Your task to perform on an android device: turn off improve location accuracy Image 0: 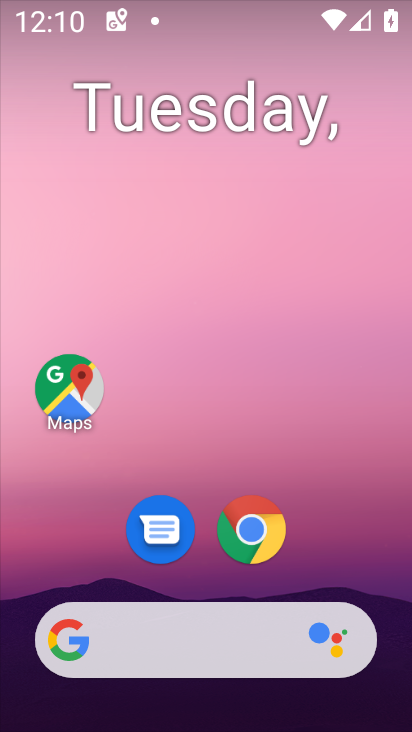
Step 0: drag from (216, 583) to (218, 116)
Your task to perform on an android device: turn off improve location accuracy Image 1: 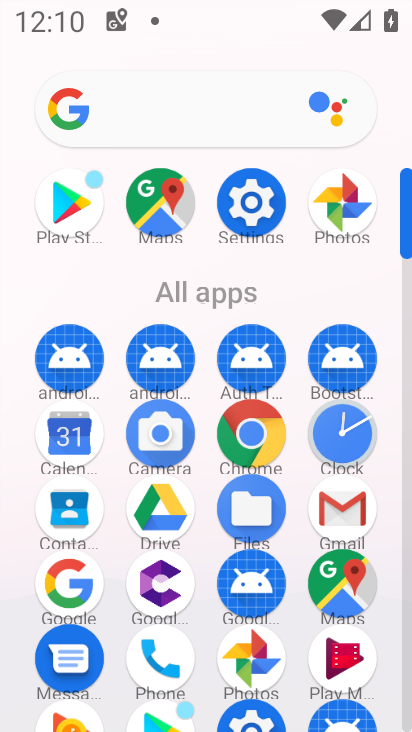
Step 1: click (247, 211)
Your task to perform on an android device: turn off improve location accuracy Image 2: 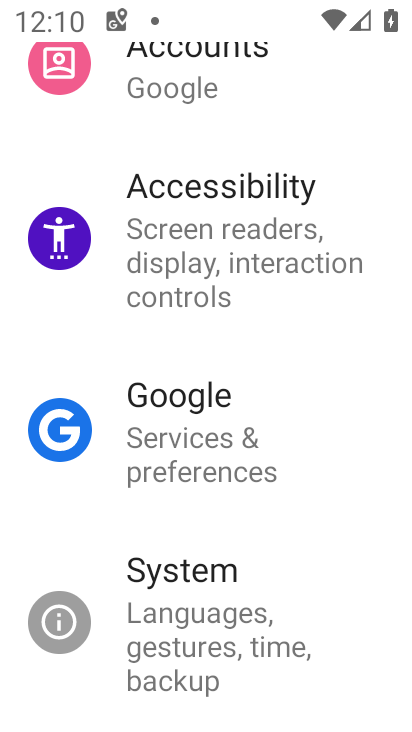
Step 2: drag from (230, 169) to (182, 719)
Your task to perform on an android device: turn off improve location accuracy Image 3: 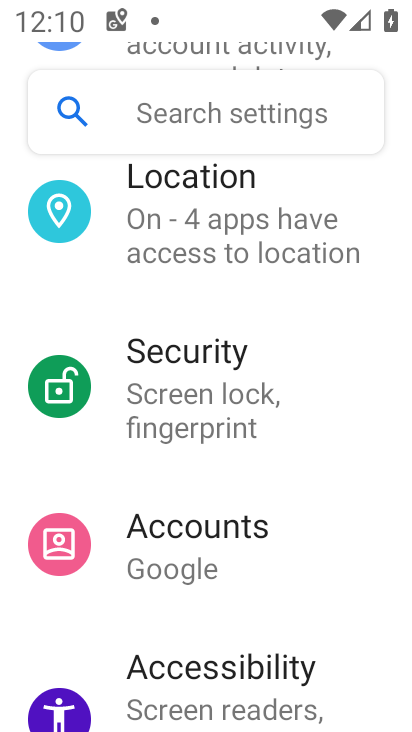
Step 3: click (181, 231)
Your task to perform on an android device: turn off improve location accuracy Image 4: 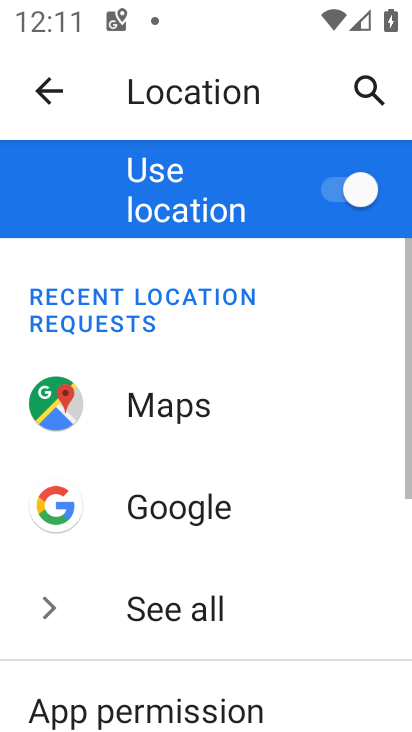
Step 4: drag from (166, 652) to (264, 73)
Your task to perform on an android device: turn off improve location accuracy Image 5: 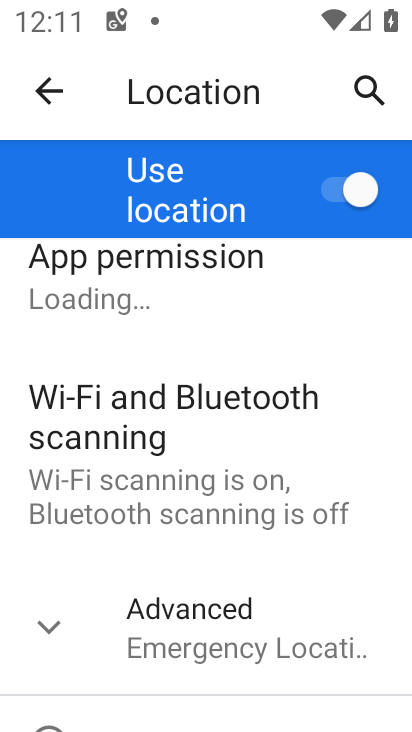
Step 5: click (201, 650)
Your task to perform on an android device: turn off improve location accuracy Image 6: 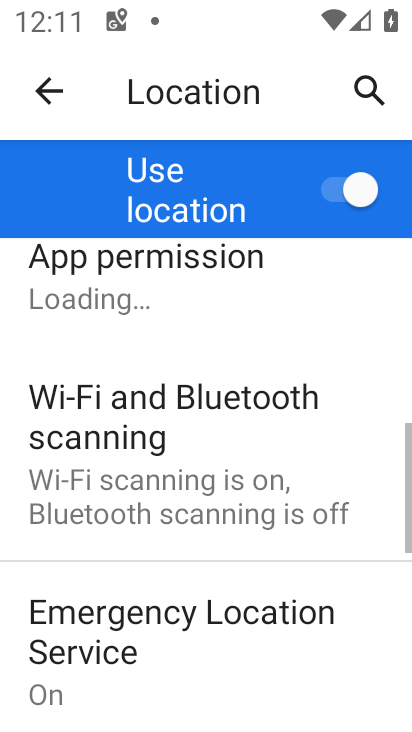
Step 6: drag from (208, 643) to (278, 161)
Your task to perform on an android device: turn off improve location accuracy Image 7: 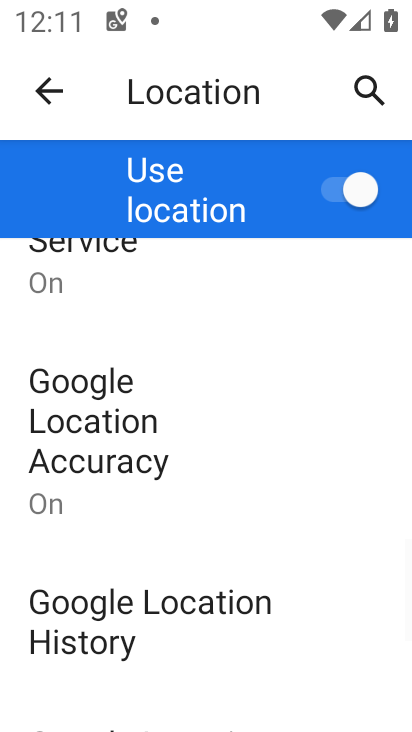
Step 7: click (106, 424)
Your task to perform on an android device: turn off improve location accuracy Image 8: 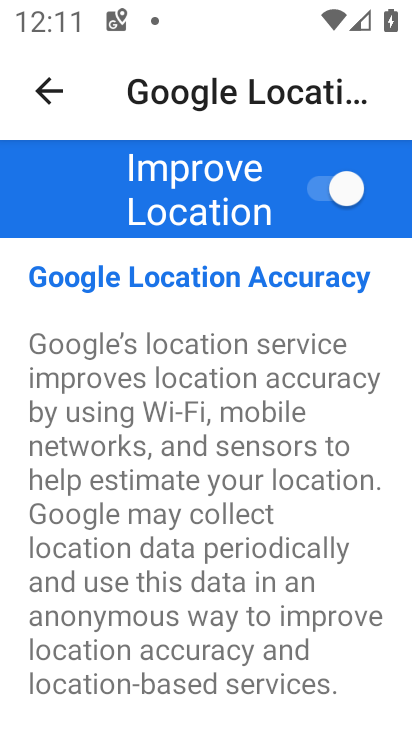
Step 8: click (335, 190)
Your task to perform on an android device: turn off improve location accuracy Image 9: 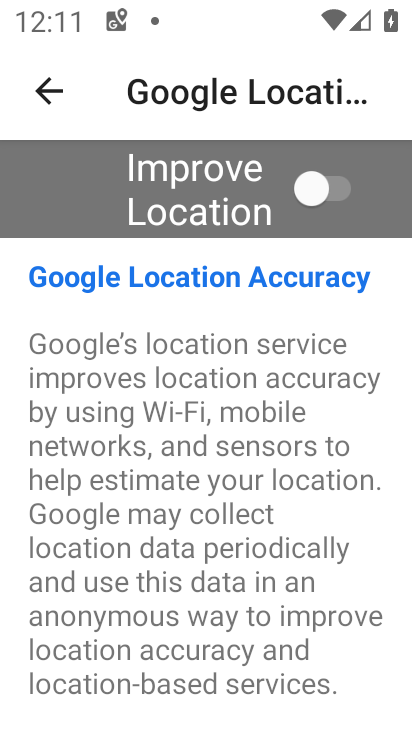
Step 9: task complete